Your task to perform on an android device: Open accessibility settings Image 0: 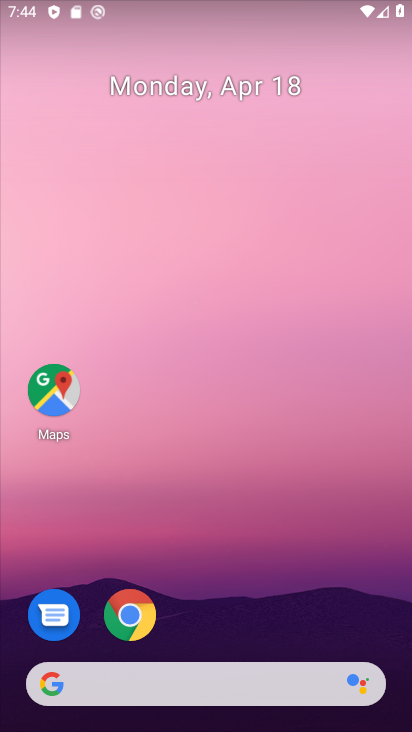
Step 0: drag from (315, 564) to (395, 41)
Your task to perform on an android device: Open accessibility settings Image 1: 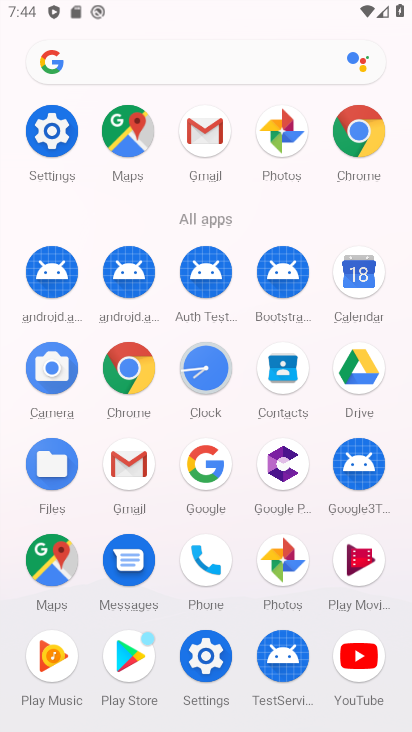
Step 1: click (56, 132)
Your task to perform on an android device: Open accessibility settings Image 2: 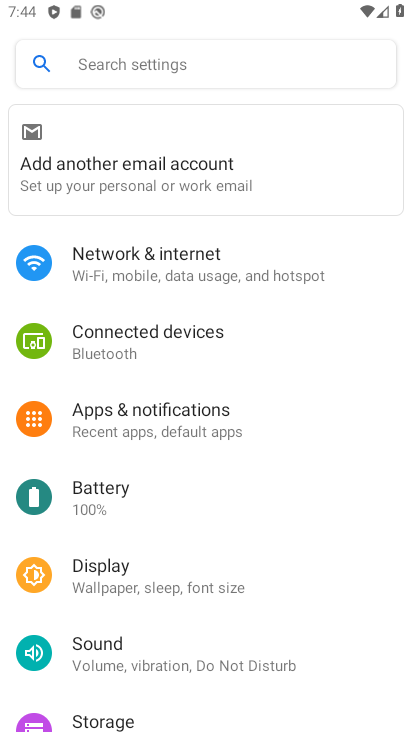
Step 2: drag from (197, 616) to (229, 210)
Your task to perform on an android device: Open accessibility settings Image 3: 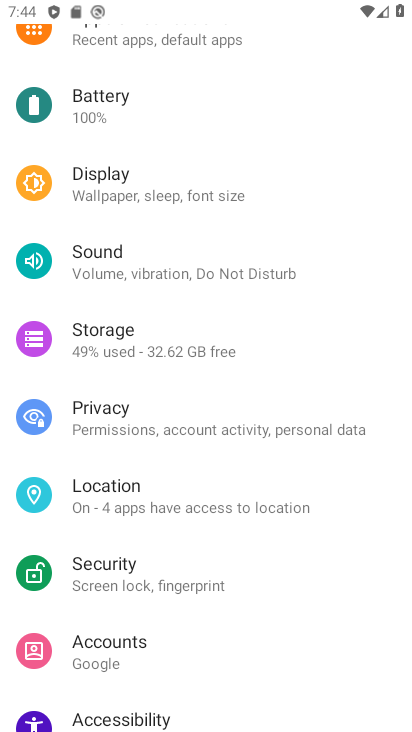
Step 3: drag from (179, 626) to (247, 194)
Your task to perform on an android device: Open accessibility settings Image 4: 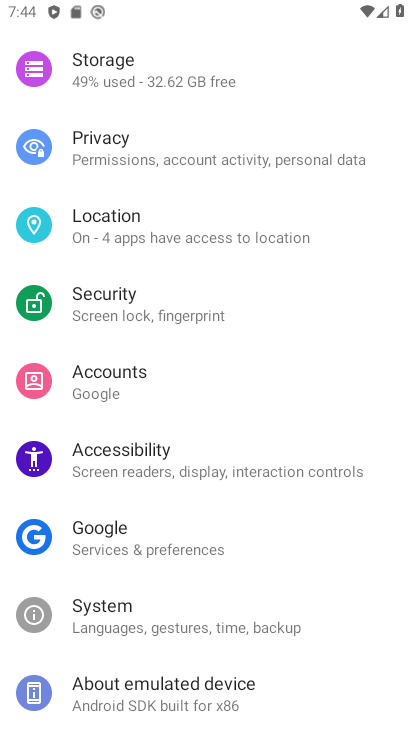
Step 4: click (178, 466)
Your task to perform on an android device: Open accessibility settings Image 5: 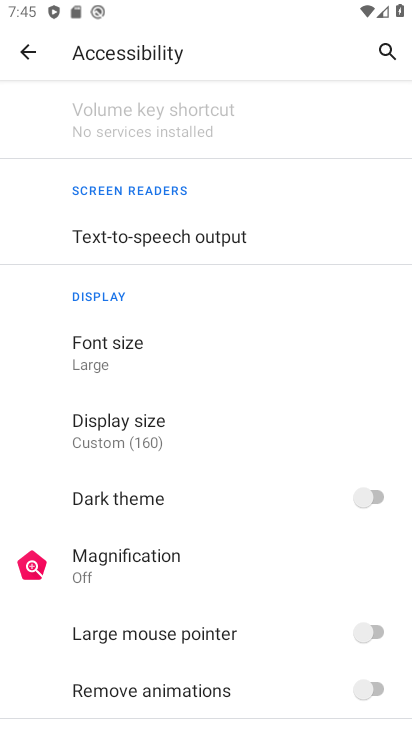
Step 5: task complete